Your task to perform on an android device: Look up the best rated power drills on Lowes.com Image 0: 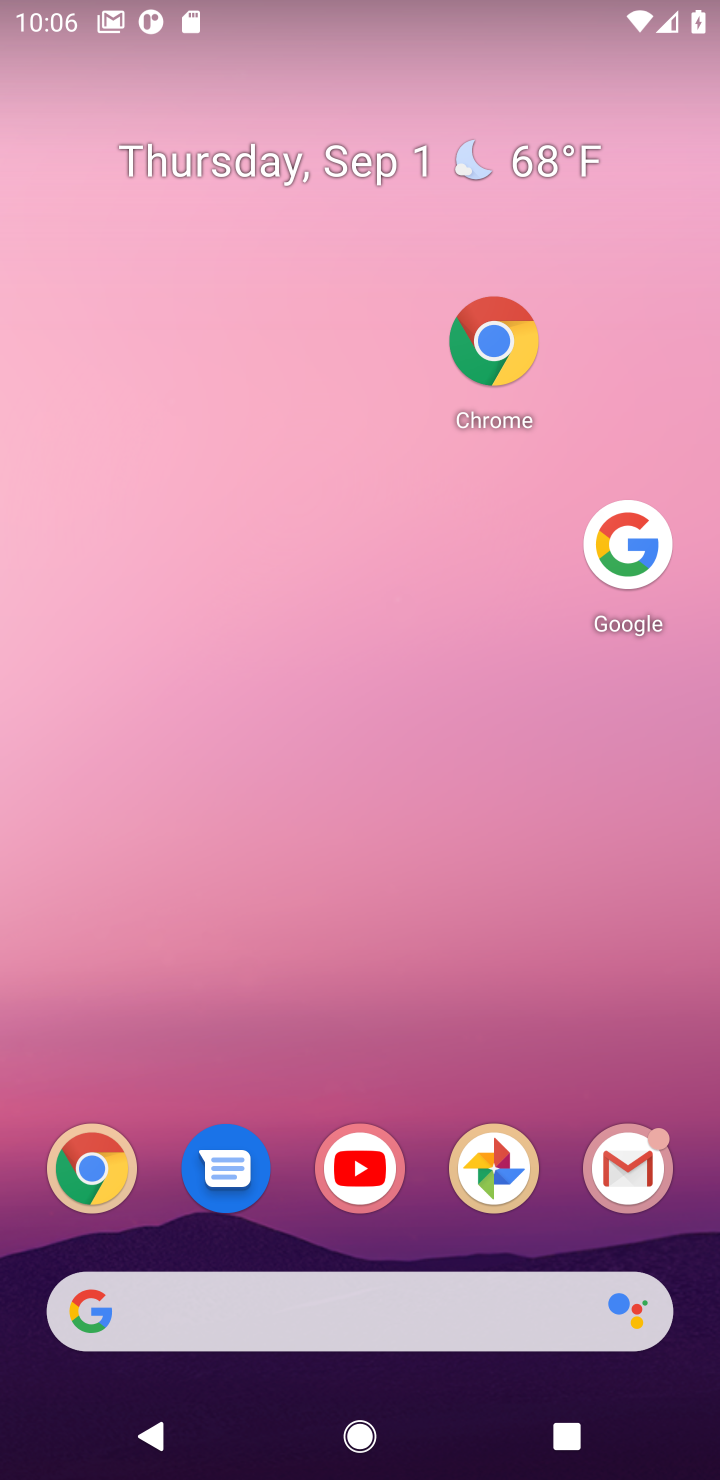
Step 0: drag from (194, 692) to (209, 346)
Your task to perform on an android device: Look up the best rated power drills on Lowes.com Image 1: 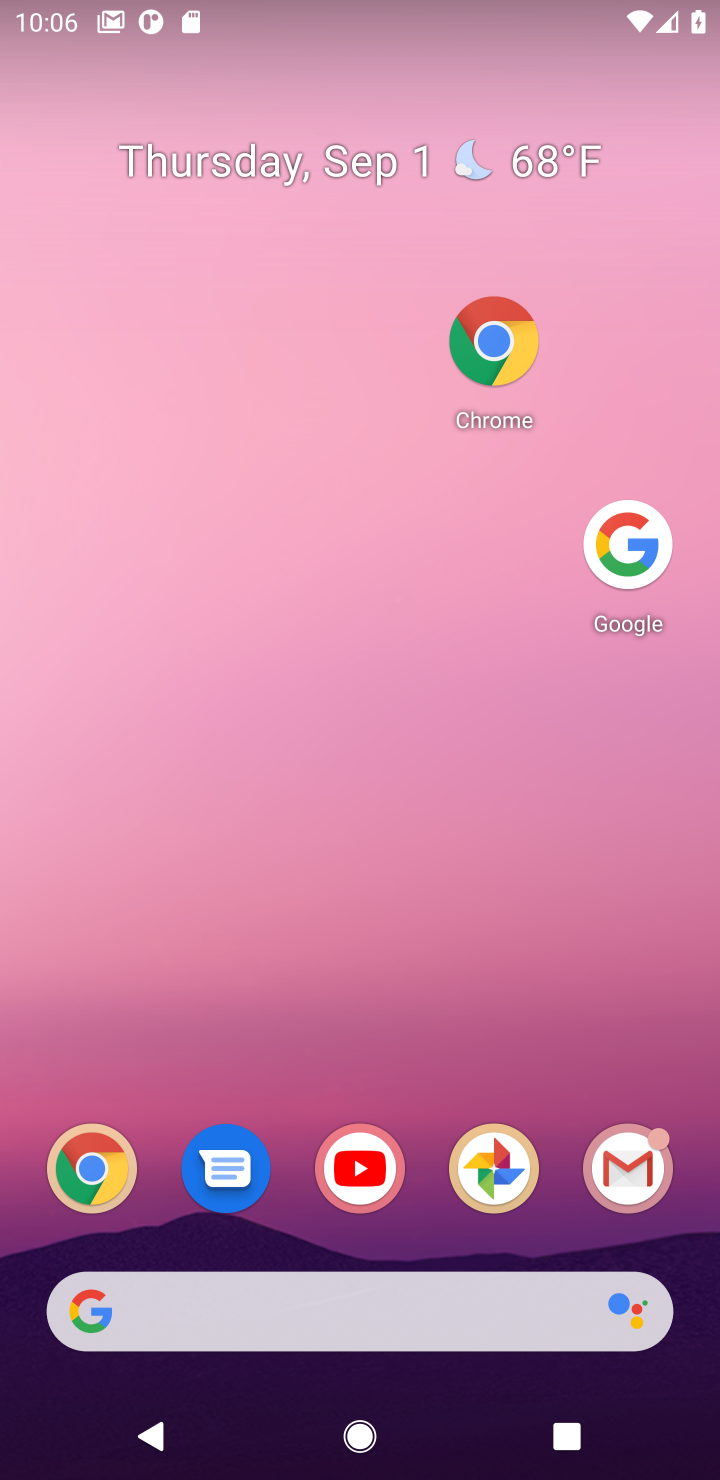
Step 1: drag from (323, 1147) to (345, 423)
Your task to perform on an android device: Look up the best rated power drills on Lowes.com Image 2: 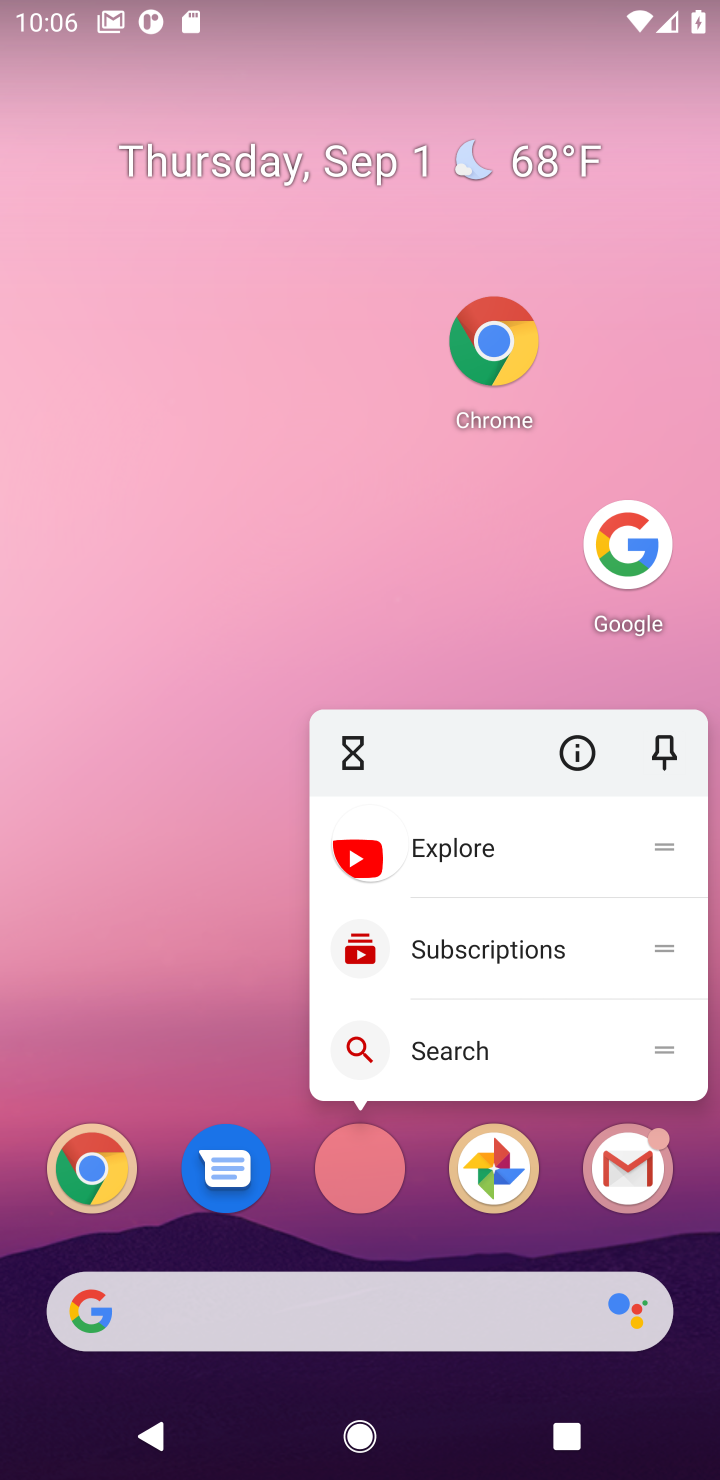
Step 2: click (217, 892)
Your task to perform on an android device: Look up the best rated power drills on Lowes.com Image 3: 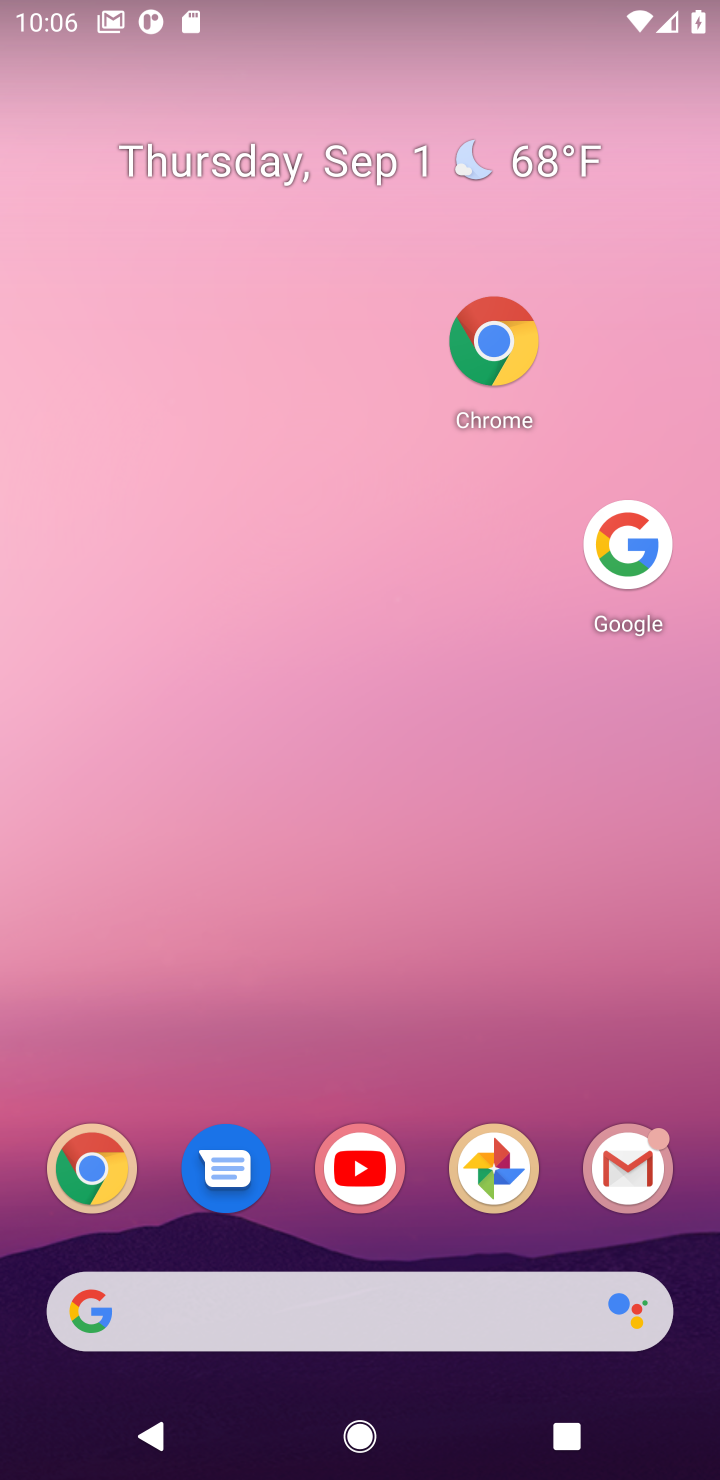
Step 3: drag from (176, 852) to (176, 281)
Your task to perform on an android device: Look up the best rated power drills on Lowes.com Image 4: 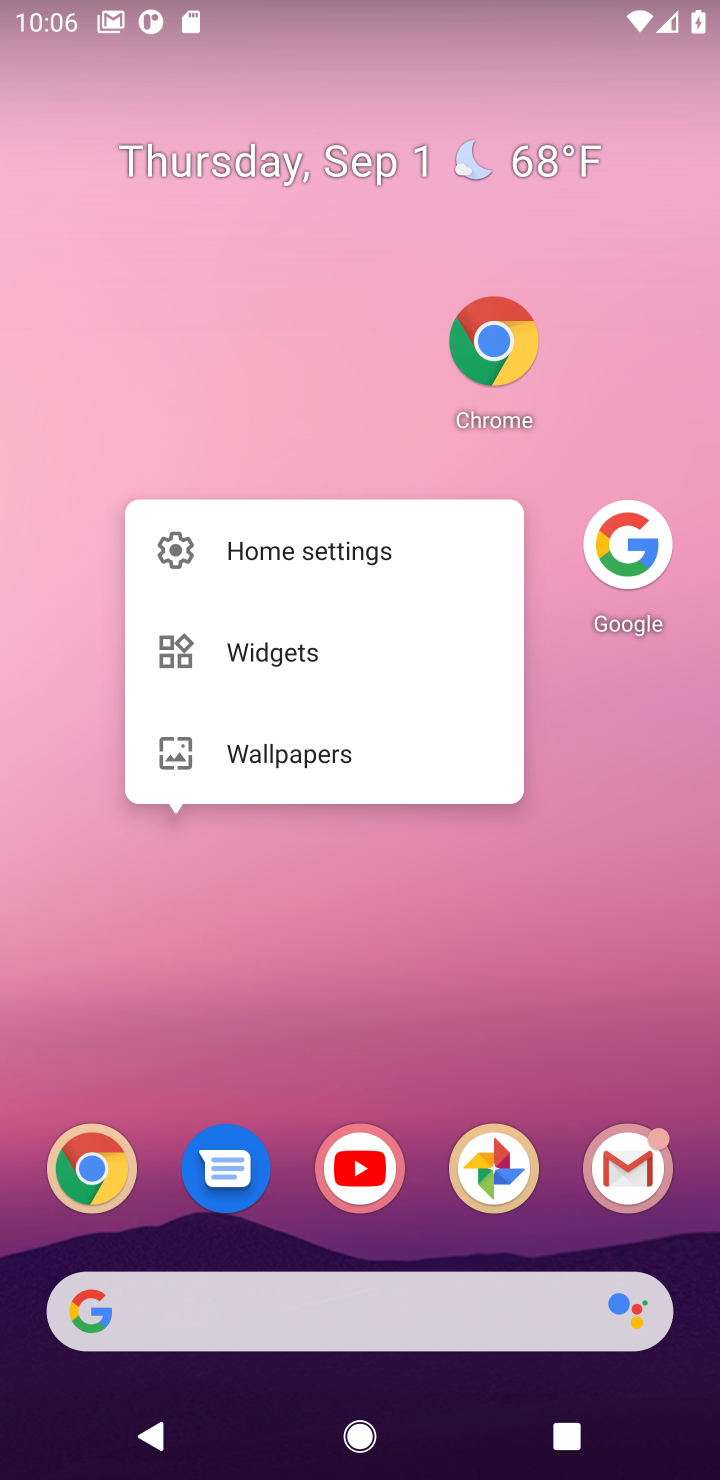
Step 4: click (209, 336)
Your task to perform on an android device: Look up the best rated power drills on Lowes.com Image 5: 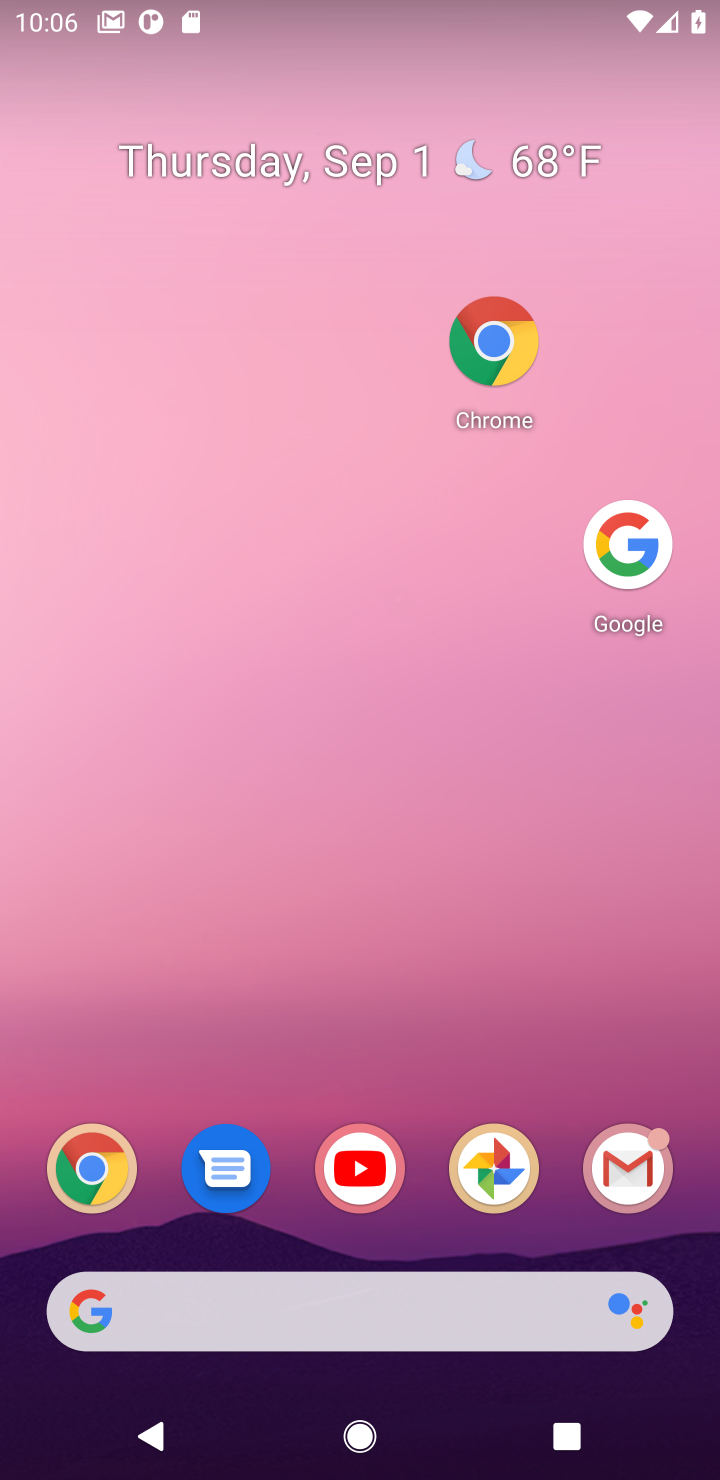
Step 5: click (332, 205)
Your task to perform on an android device: Look up the best rated power drills on Lowes.com Image 6: 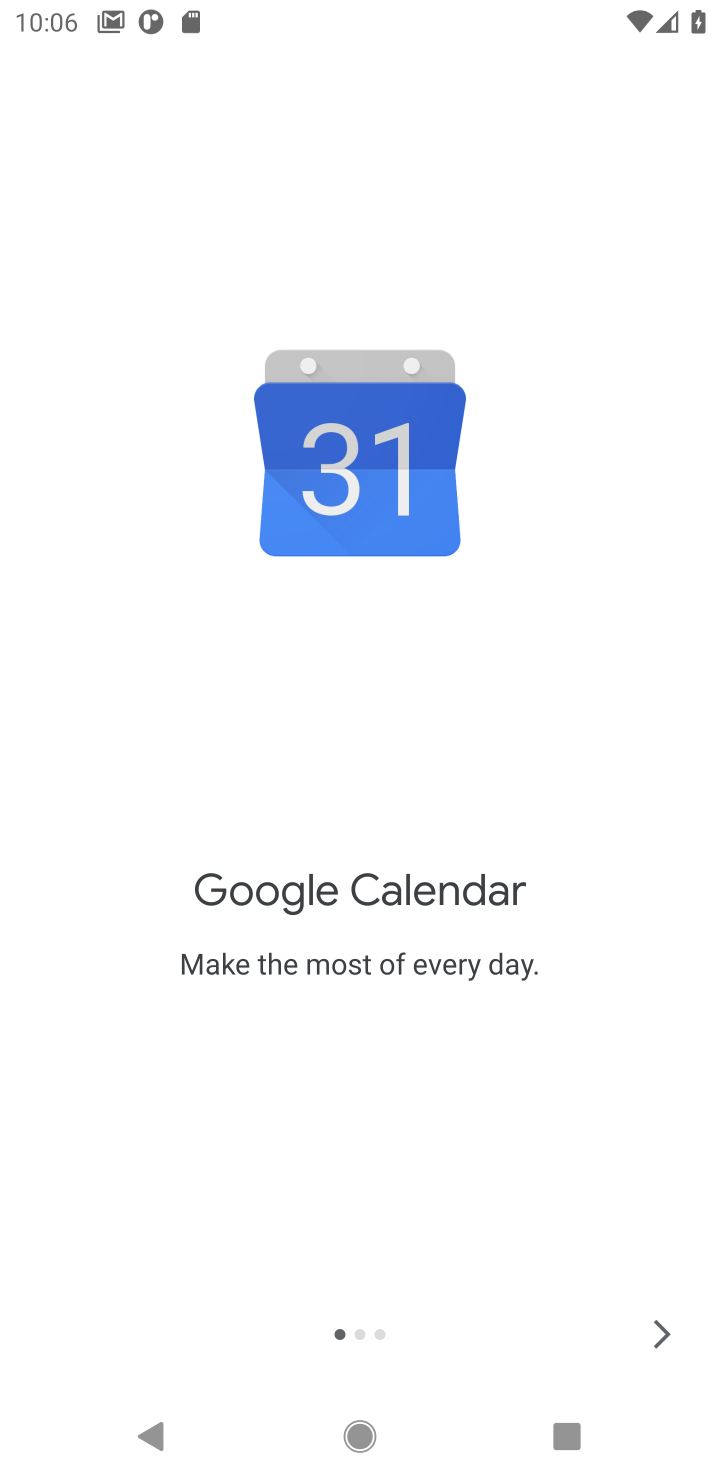
Step 6: press home button
Your task to perform on an android device: Look up the best rated power drills on Lowes.com Image 7: 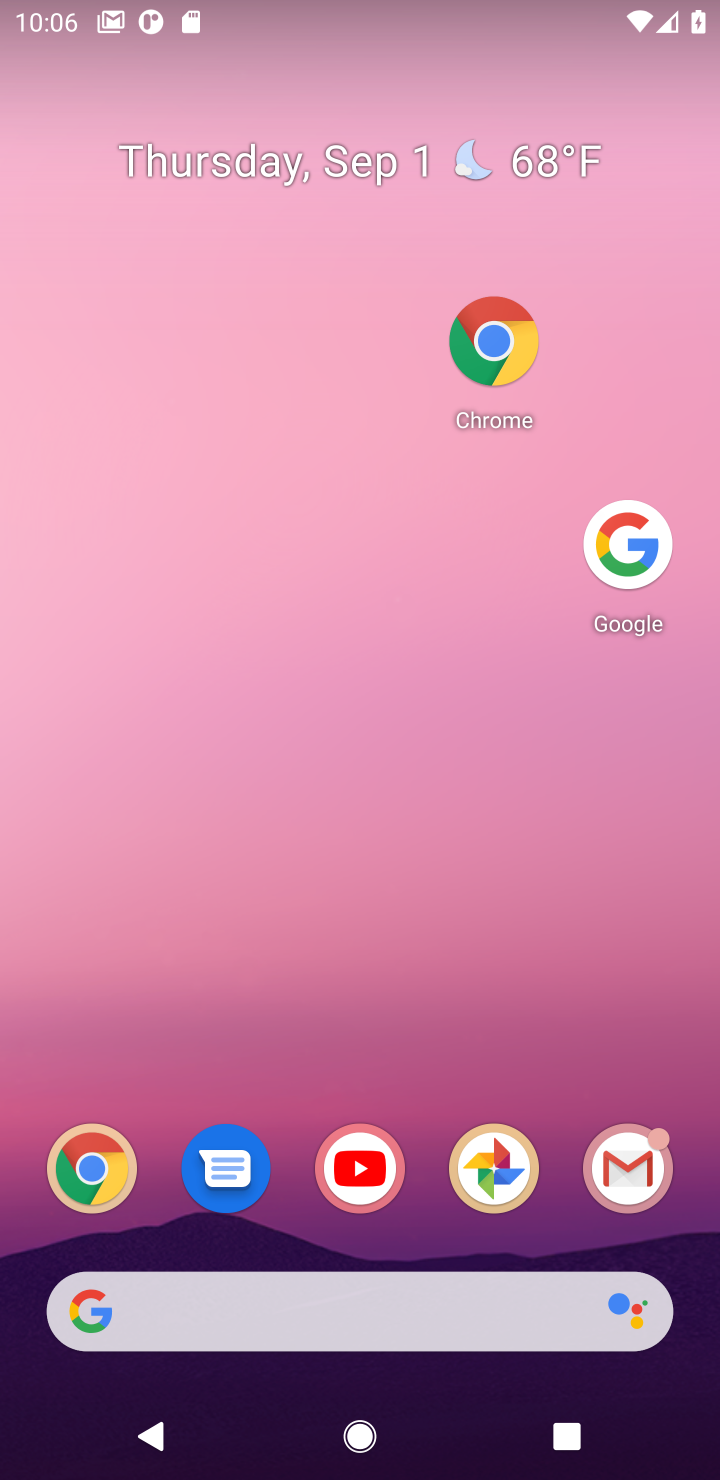
Step 7: click (376, 291)
Your task to perform on an android device: Look up the best rated power drills on Lowes.com Image 8: 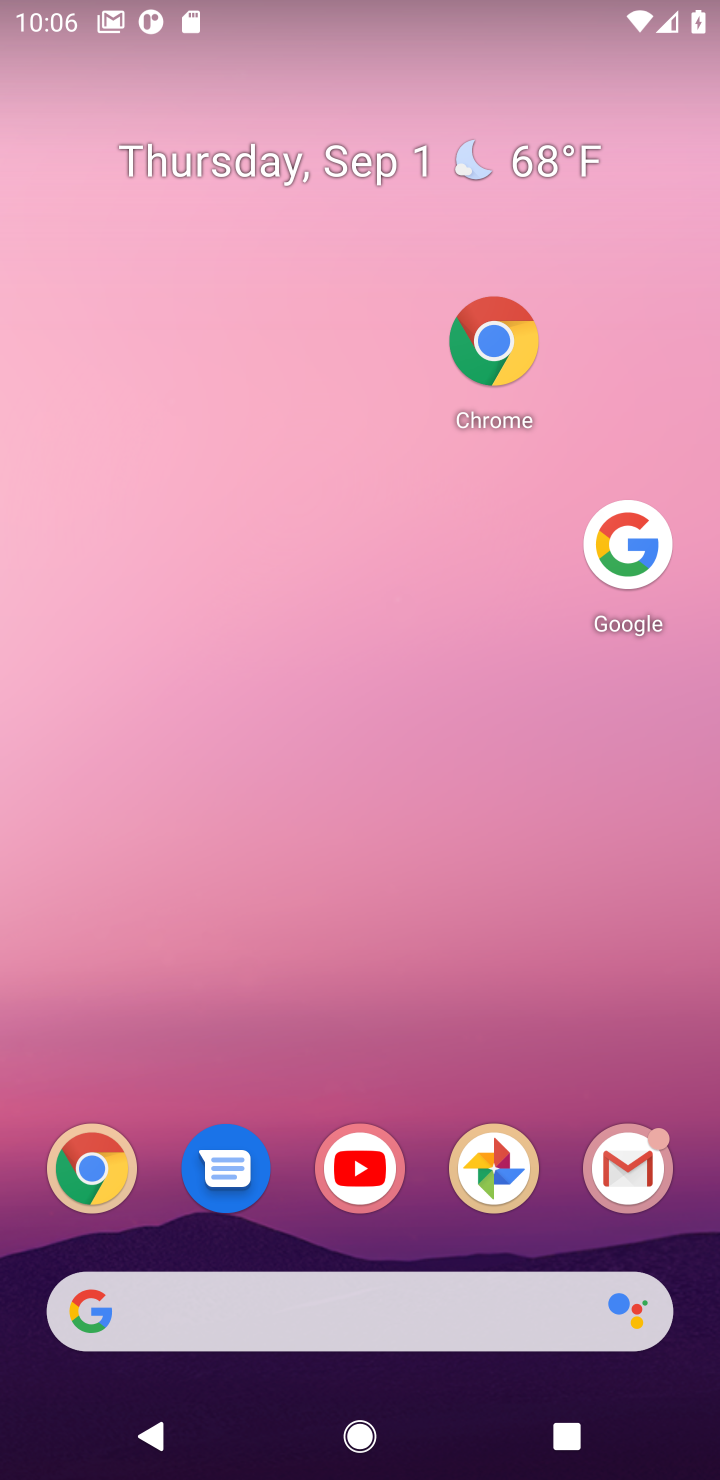
Step 8: drag from (311, 1174) to (324, 501)
Your task to perform on an android device: Look up the best rated power drills on Lowes.com Image 9: 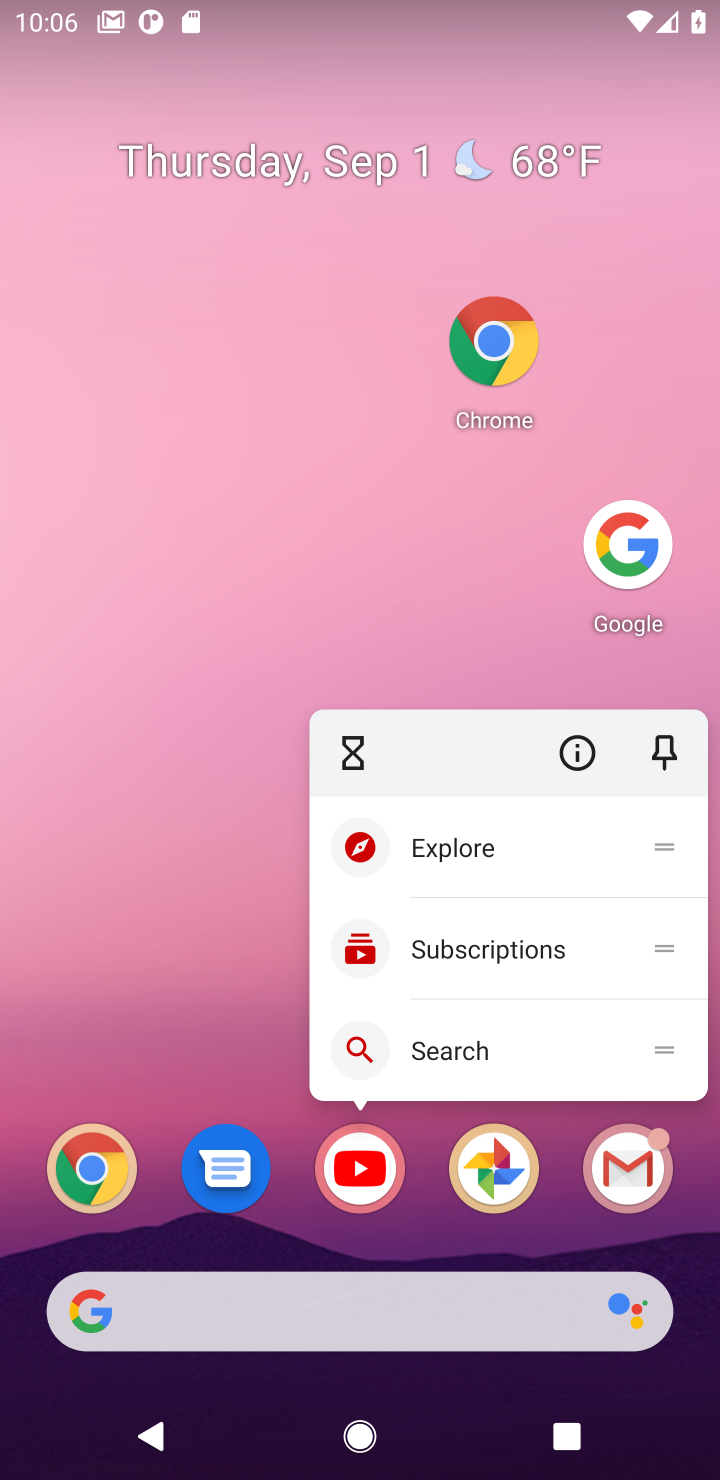
Step 9: click (132, 967)
Your task to perform on an android device: Look up the best rated power drills on Lowes.com Image 10: 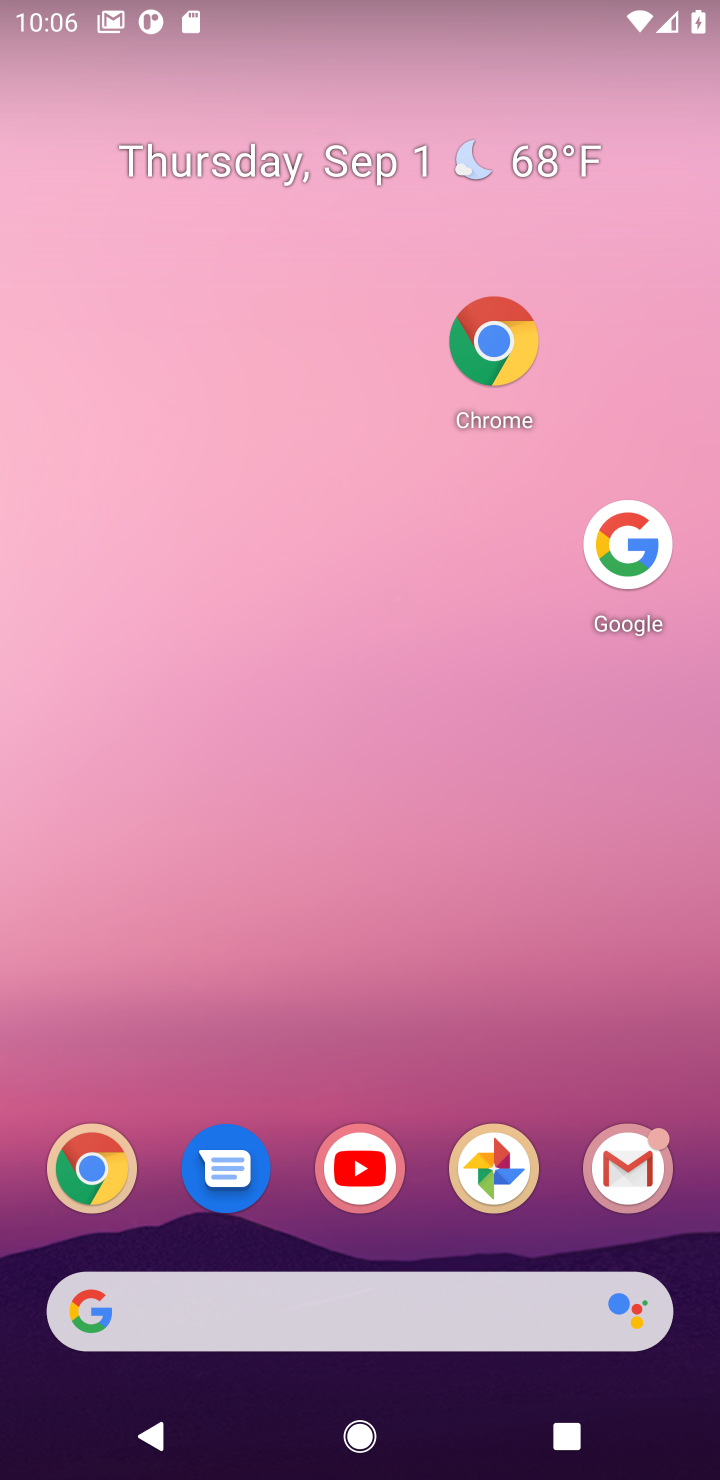
Step 10: click (328, 701)
Your task to perform on an android device: Look up the best rated power drills on Lowes.com Image 11: 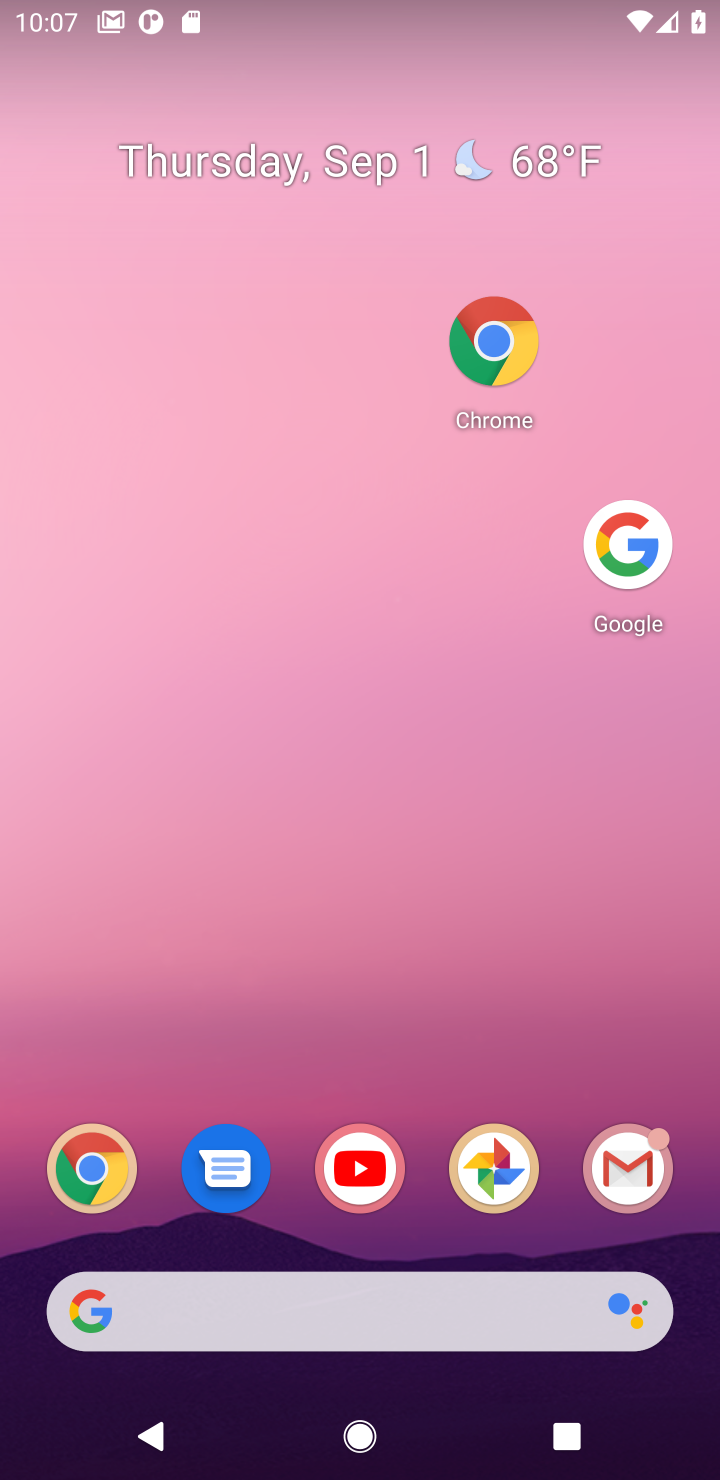
Step 11: click (330, 281)
Your task to perform on an android device: Look up the best rated power drills on Lowes.com Image 12: 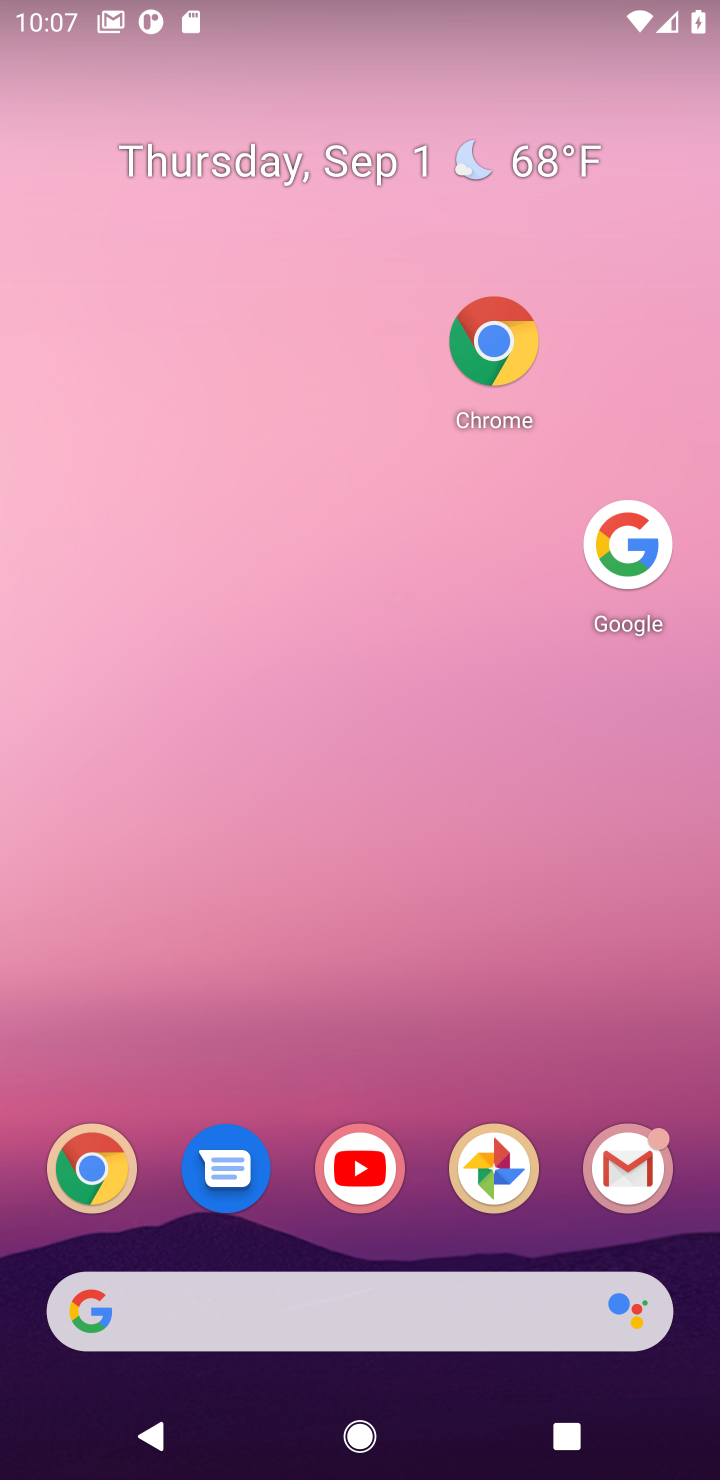
Step 12: drag from (326, 1094) to (310, 510)
Your task to perform on an android device: Look up the best rated power drills on Lowes.com Image 13: 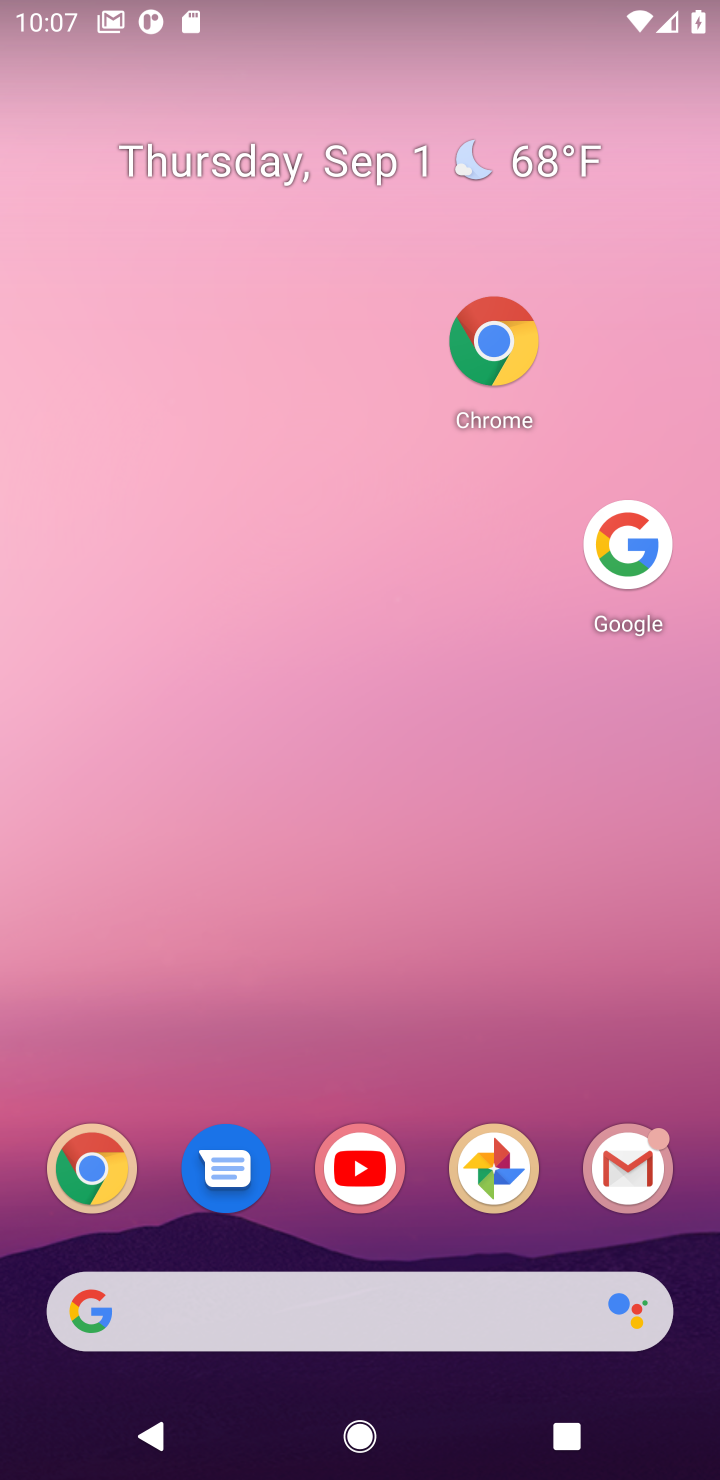
Step 13: click (609, 533)
Your task to perform on an android device: Look up the best rated power drills on Lowes.com Image 14: 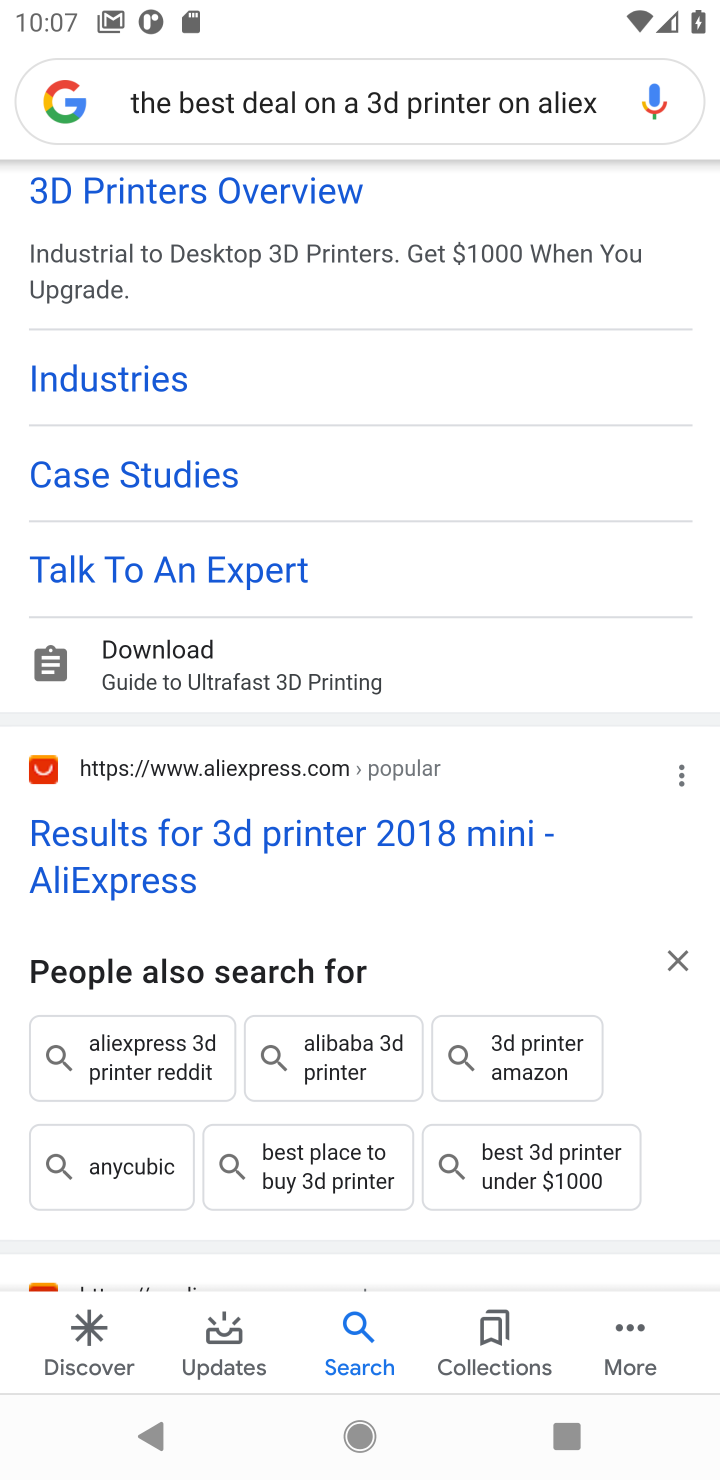
Step 14: drag from (416, 208) to (397, 1051)
Your task to perform on an android device: Look up the best rated power drills on Lowes.com Image 15: 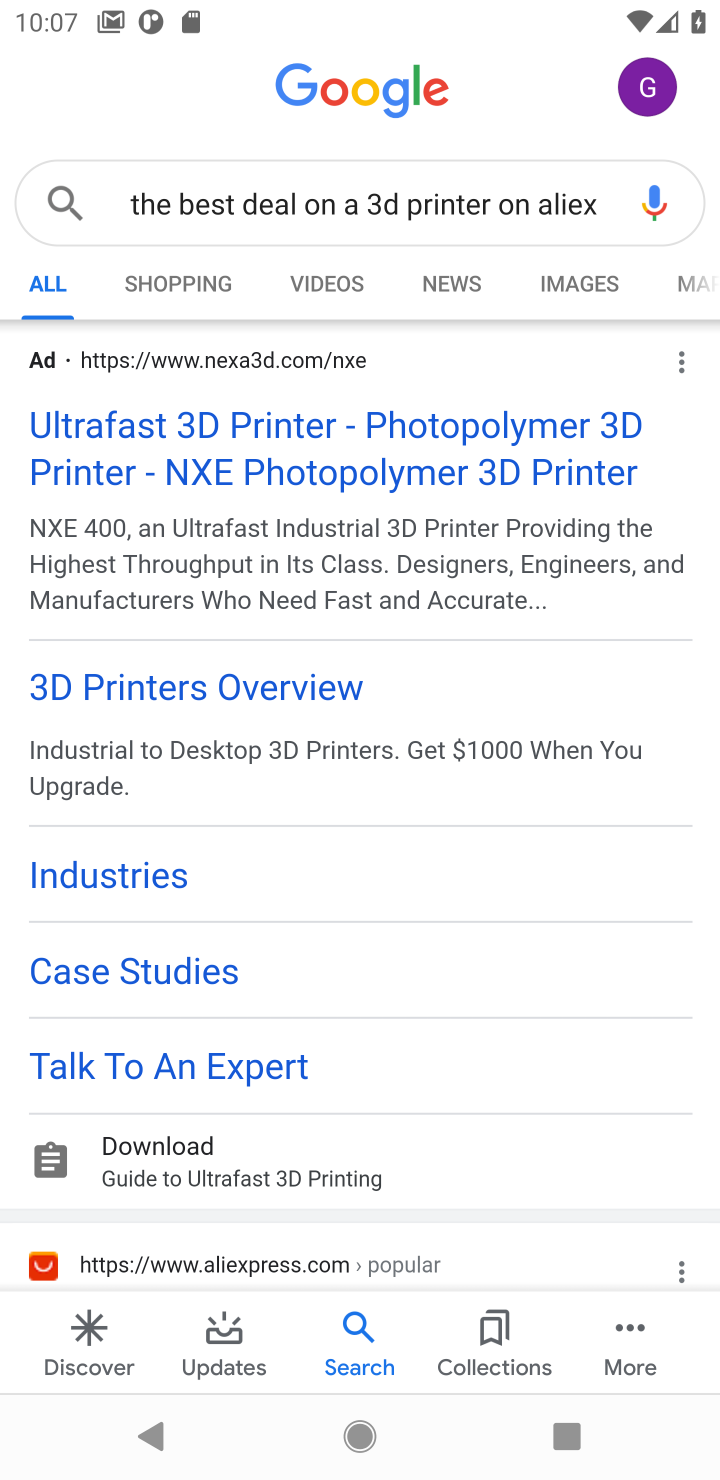
Step 15: click (530, 193)
Your task to perform on an android device: Look up the best rated power drills on Lowes.com Image 16: 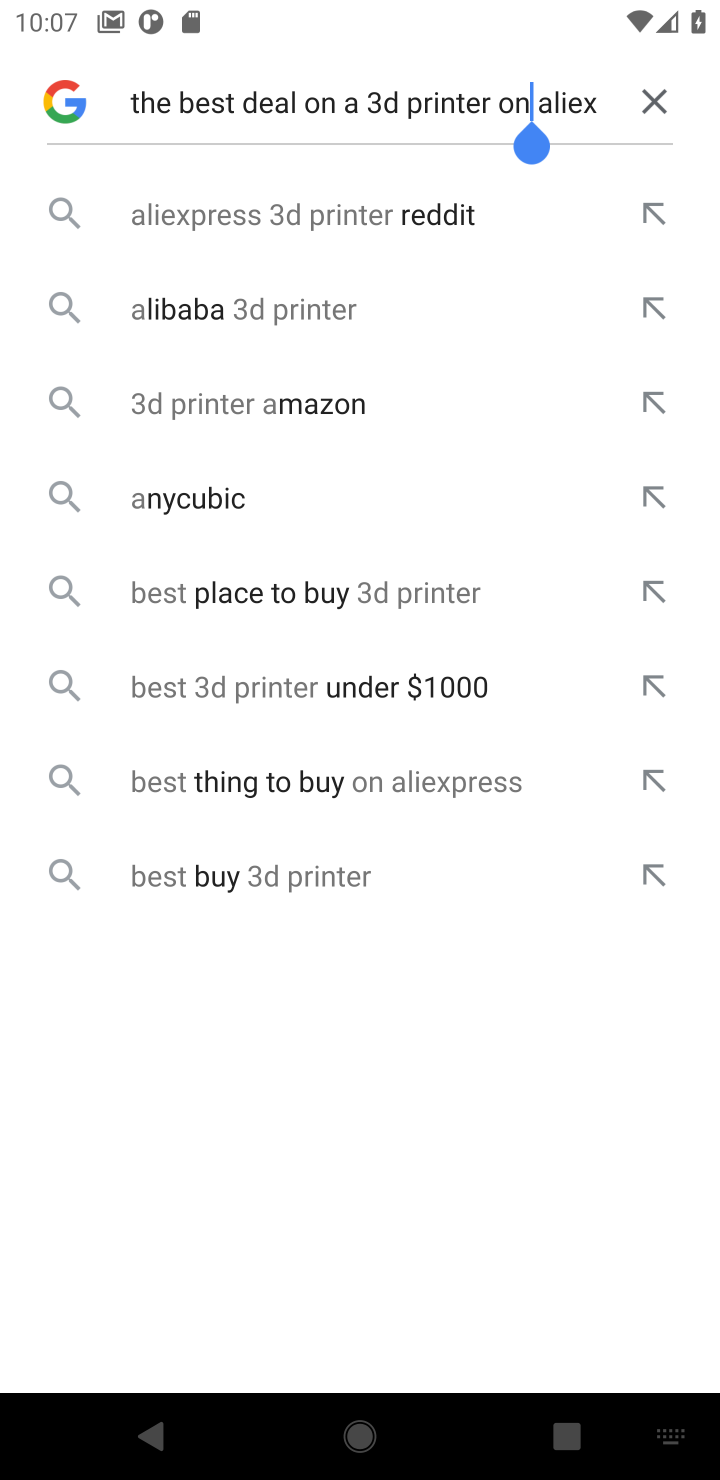
Step 16: click (654, 107)
Your task to perform on an android device: Look up the best rated power drills on Lowes.com Image 17: 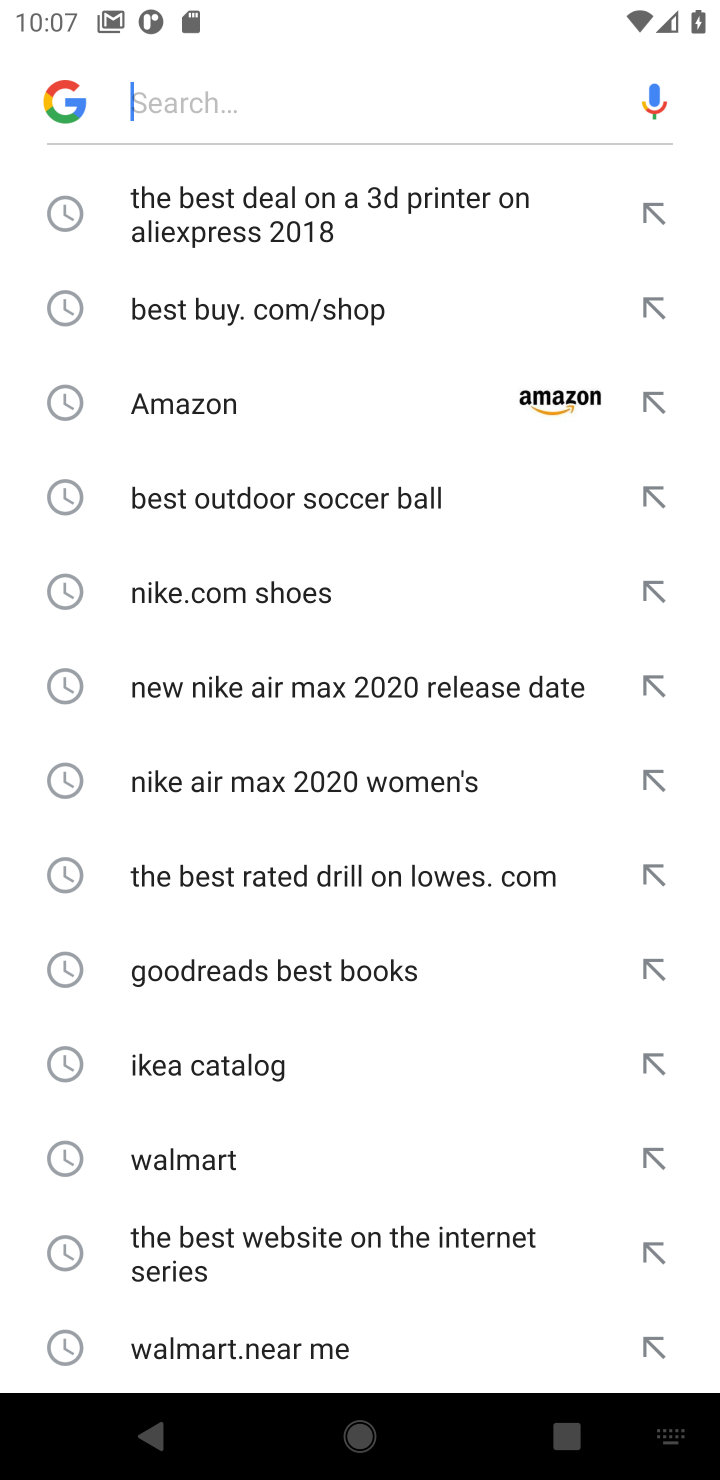
Step 17: click (293, 78)
Your task to perform on an android device: Look up the best rated power drills on Lowes.com Image 18: 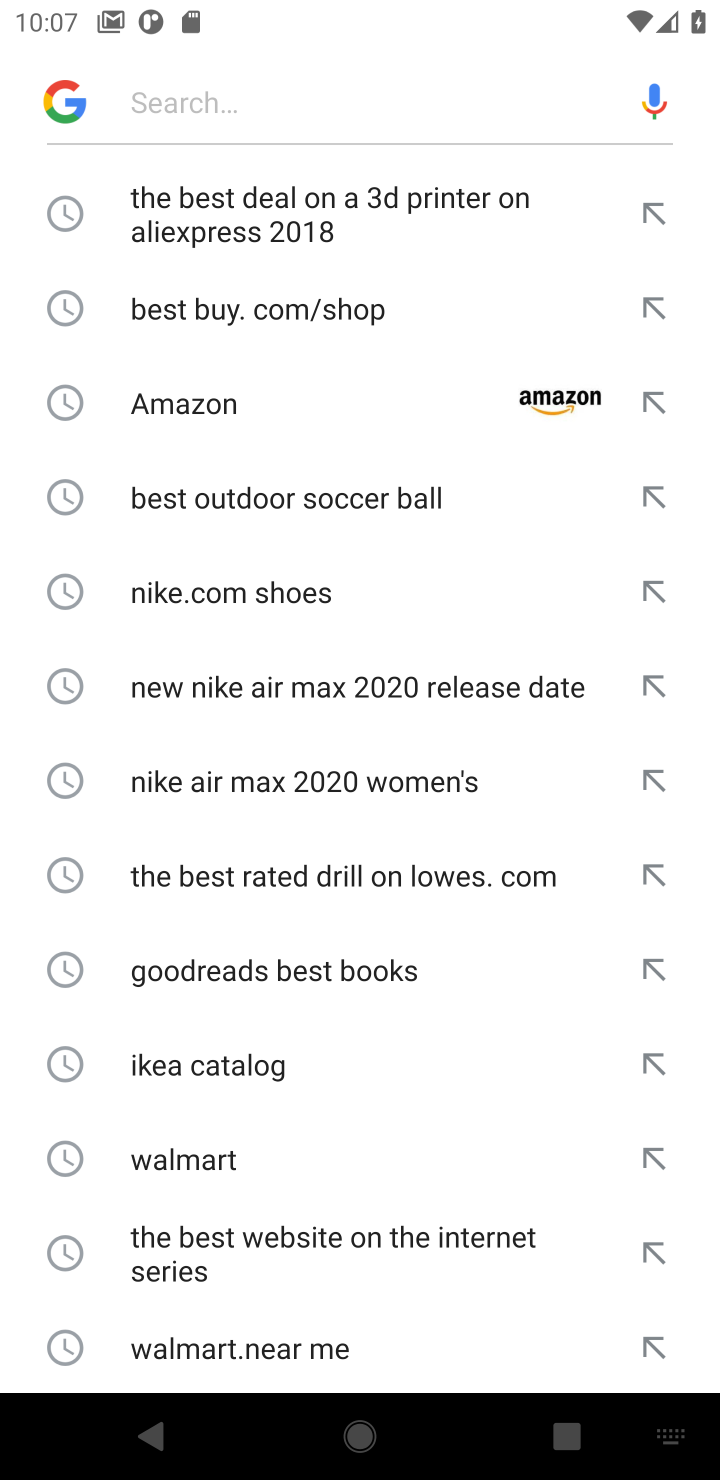
Step 18: type " the best rated power drills on Lowes.com "
Your task to perform on an android device: Look up the best rated power drills on Lowes.com Image 19: 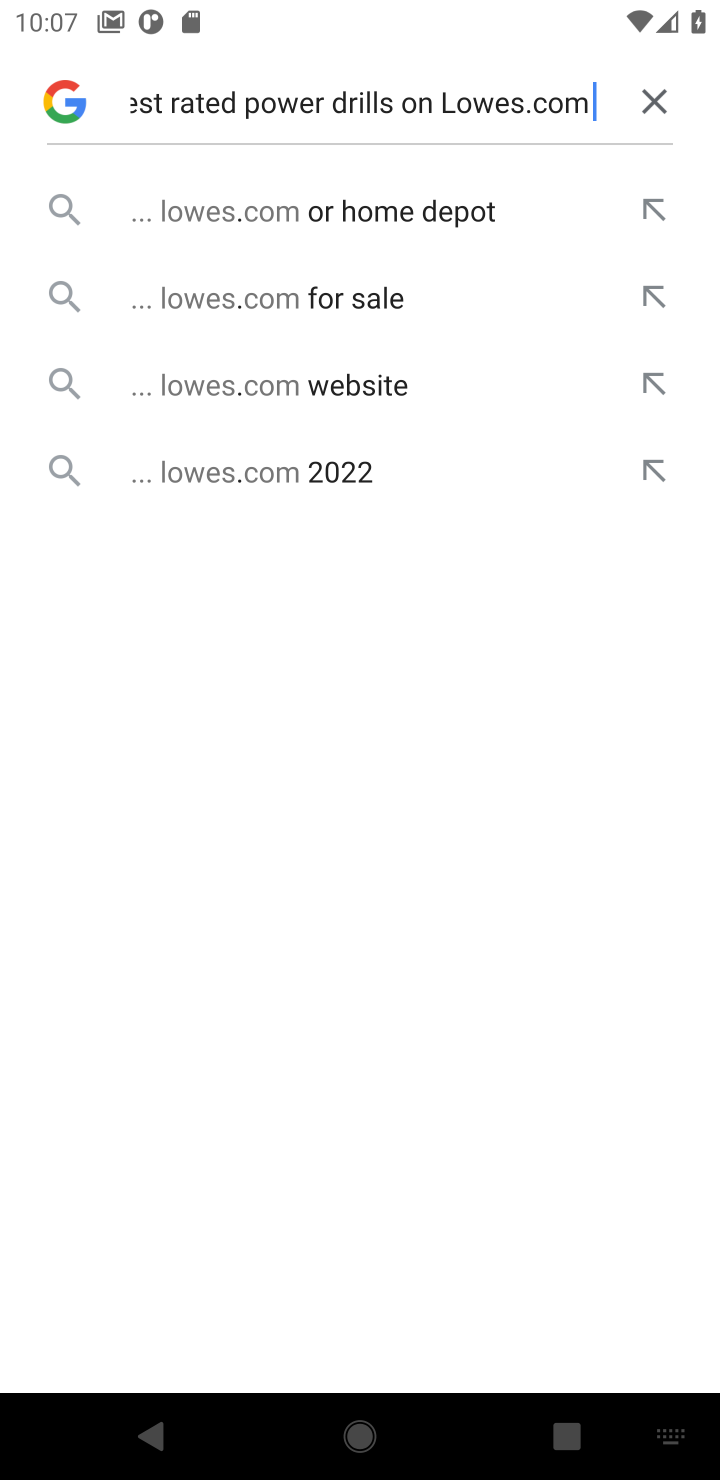
Step 19: click (338, 205)
Your task to perform on an android device: Look up the best rated power drills on Lowes.com Image 20: 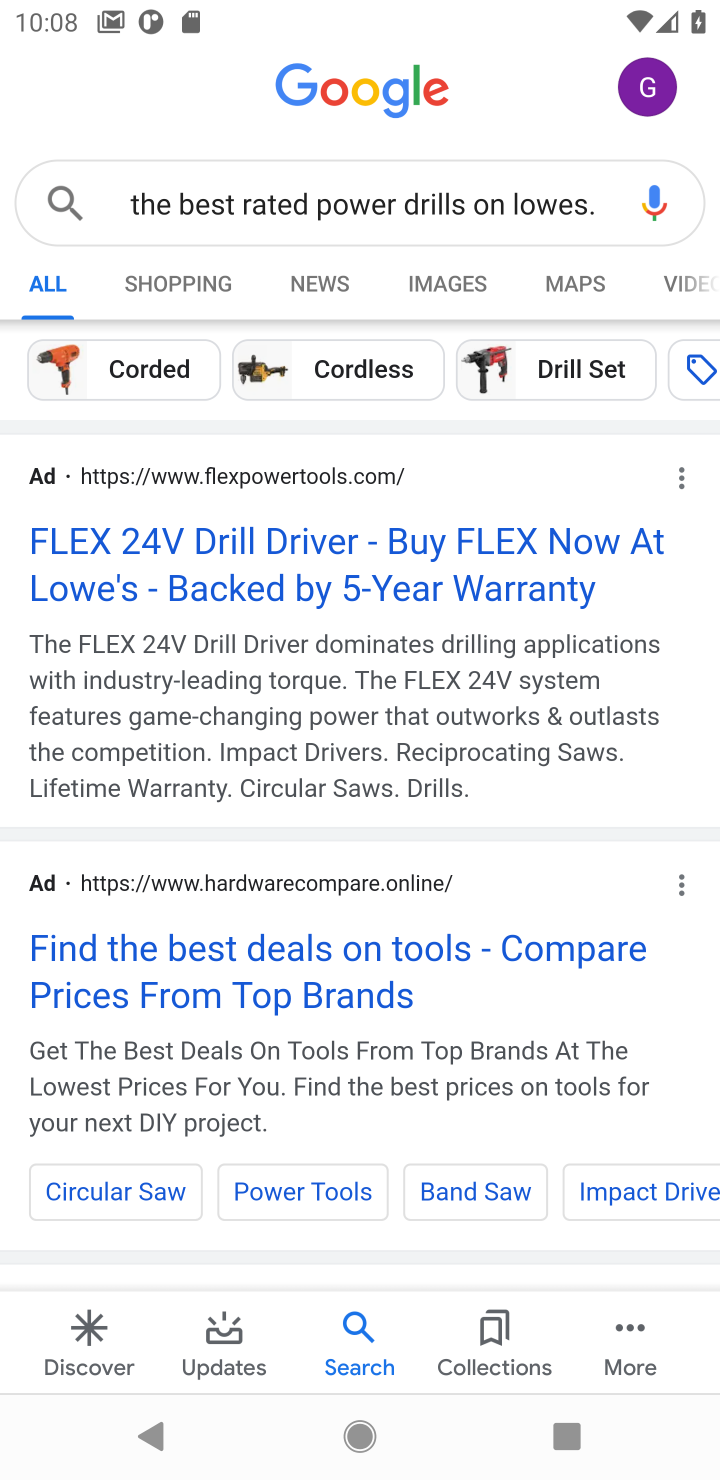
Step 20: click (333, 569)
Your task to perform on an android device: Look up the best rated power drills on Lowes.com Image 21: 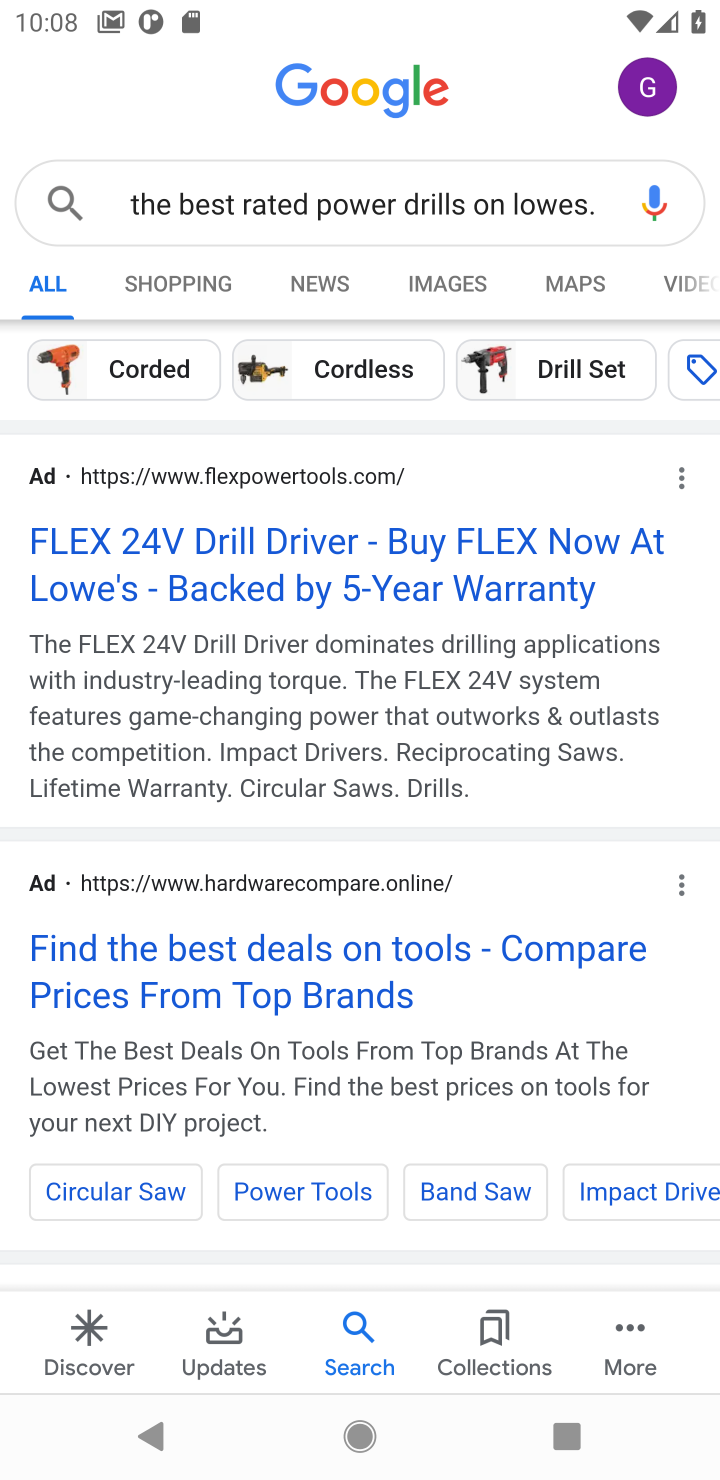
Step 21: click (279, 545)
Your task to perform on an android device: Look up the best rated power drills on Lowes.com Image 22: 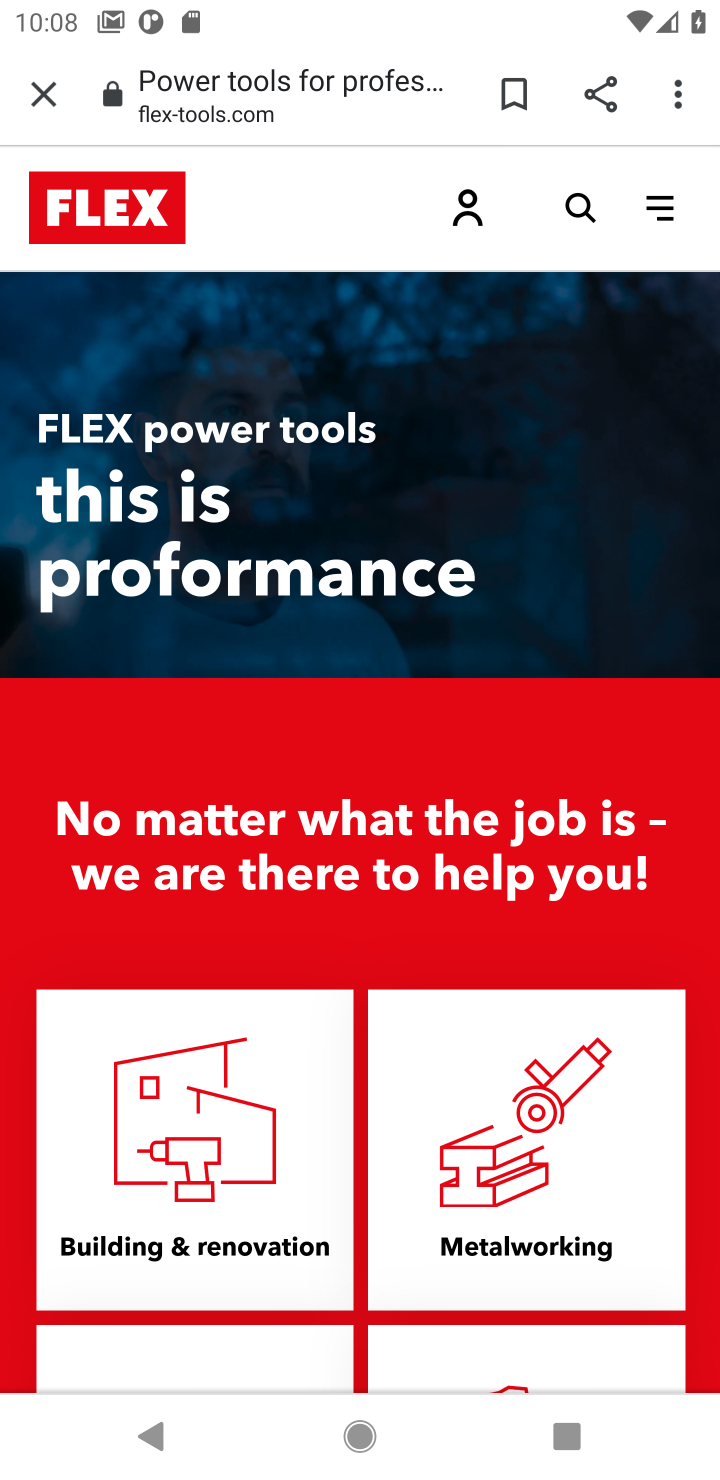
Step 22: task complete